Your task to perform on an android device: Go to network settings Image 0: 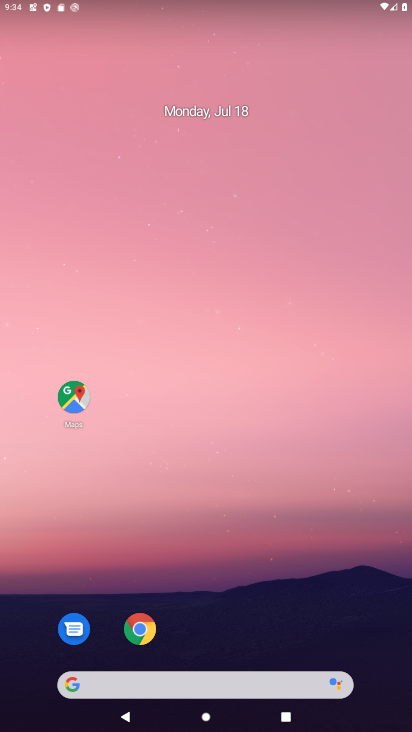
Step 0: drag from (268, 611) to (217, 118)
Your task to perform on an android device: Go to network settings Image 1: 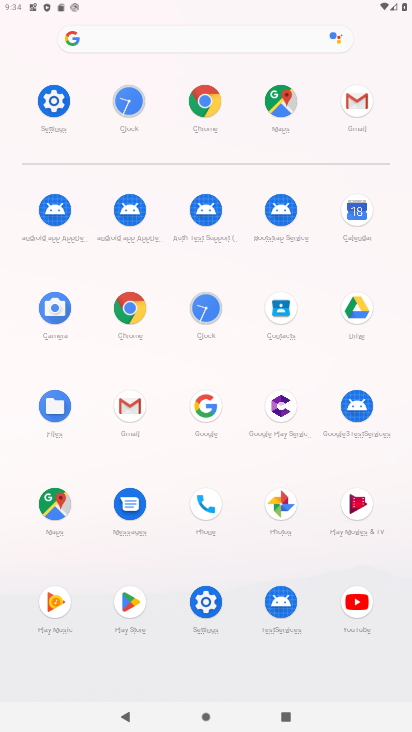
Step 1: click (62, 102)
Your task to perform on an android device: Go to network settings Image 2: 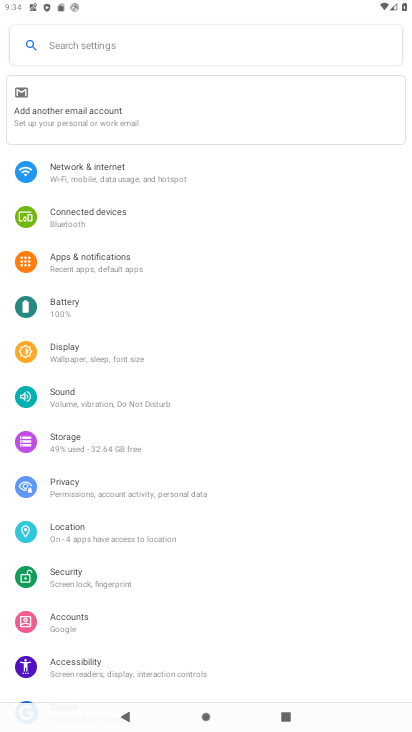
Step 2: click (80, 173)
Your task to perform on an android device: Go to network settings Image 3: 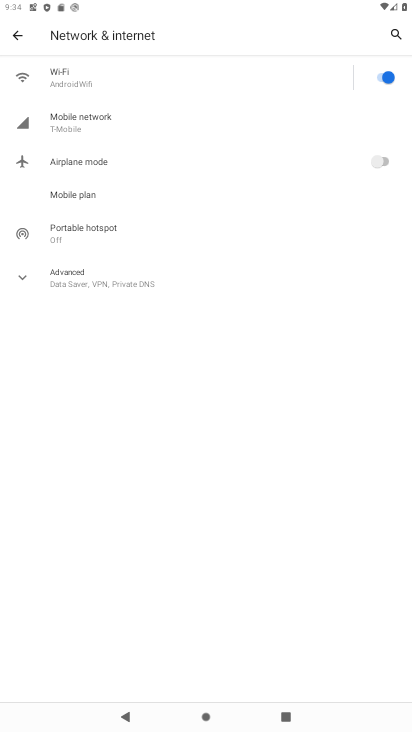
Step 3: task complete